Your task to perform on an android device: read, delete, or share a saved page in the chrome app Image 0: 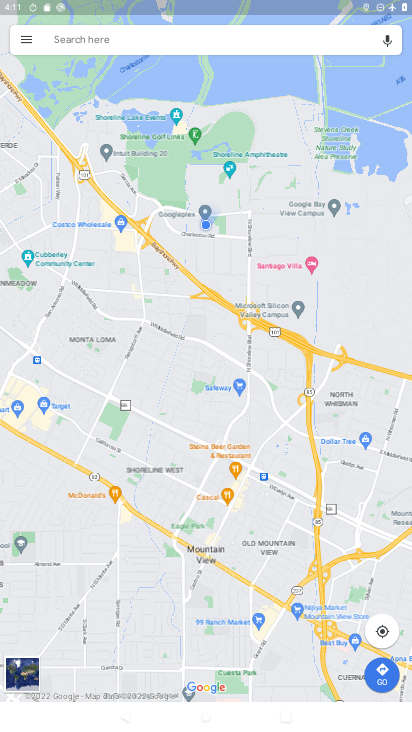
Step 0: press home button
Your task to perform on an android device: read, delete, or share a saved page in the chrome app Image 1: 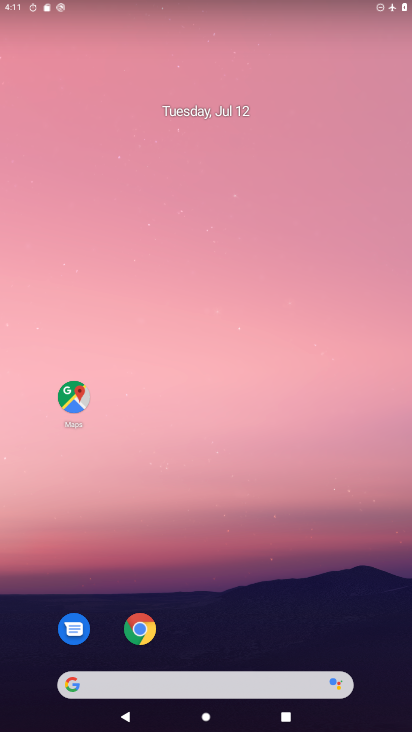
Step 1: drag from (260, 639) to (328, 214)
Your task to perform on an android device: read, delete, or share a saved page in the chrome app Image 2: 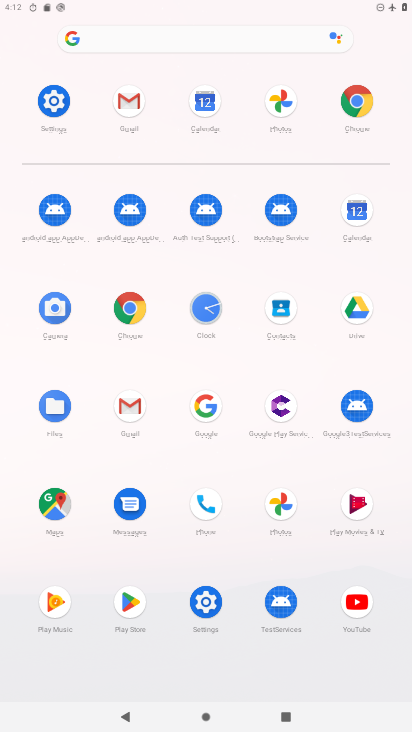
Step 2: click (135, 305)
Your task to perform on an android device: read, delete, or share a saved page in the chrome app Image 3: 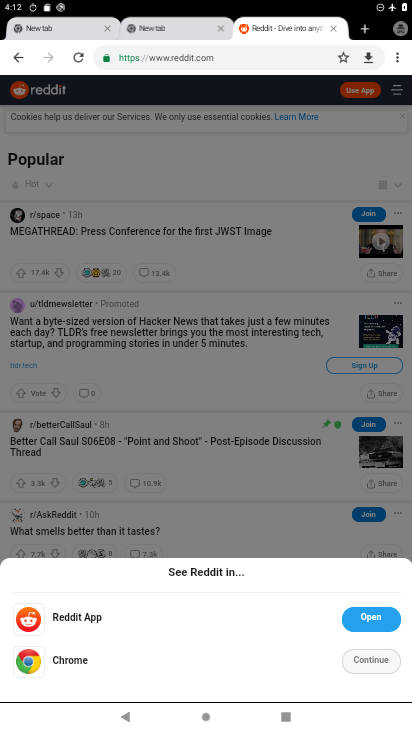
Step 3: drag from (394, 65) to (262, 203)
Your task to perform on an android device: read, delete, or share a saved page in the chrome app Image 4: 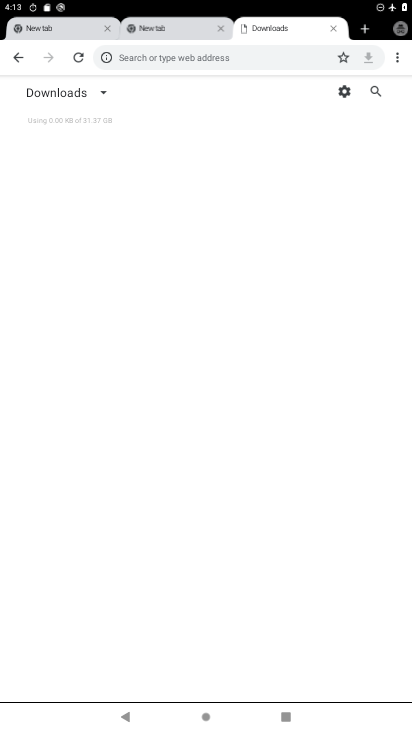
Step 4: click (100, 93)
Your task to perform on an android device: read, delete, or share a saved page in the chrome app Image 5: 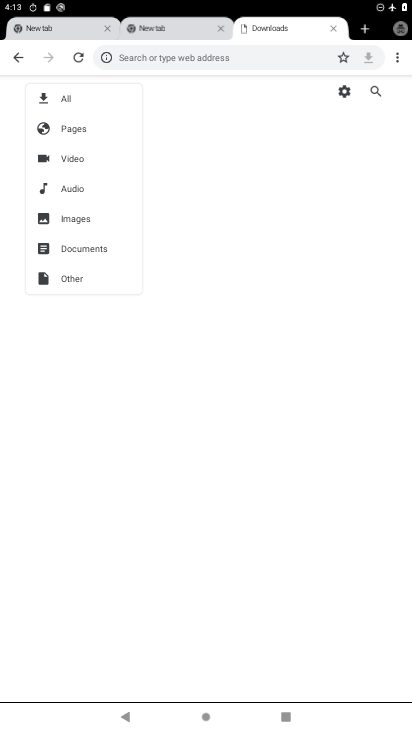
Step 5: click (84, 125)
Your task to perform on an android device: read, delete, or share a saved page in the chrome app Image 6: 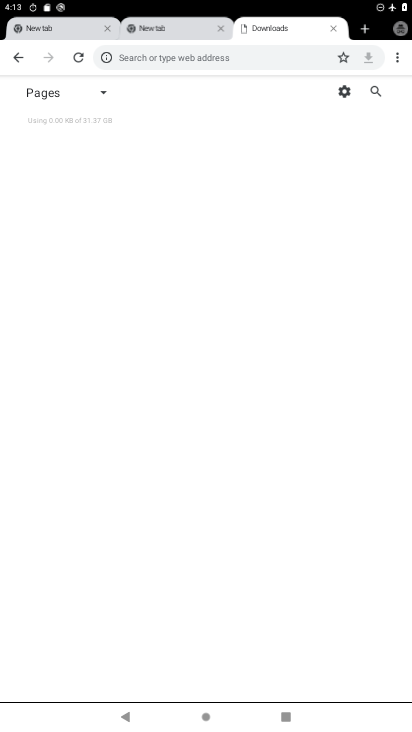
Step 6: task complete